Your task to perform on an android device: allow cookies in the chrome app Image 0: 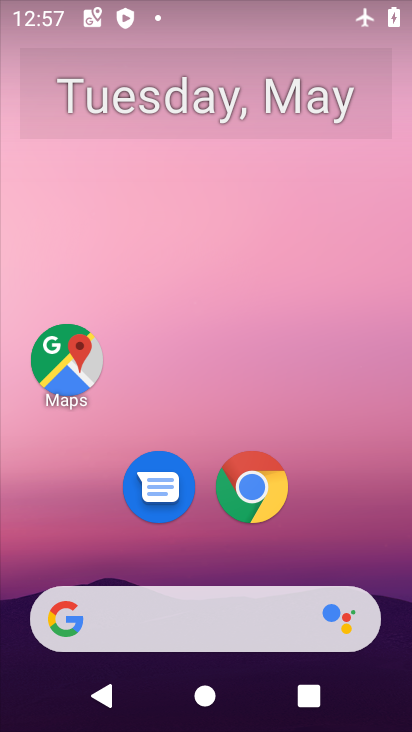
Step 0: drag from (319, 277) to (317, 44)
Your task to perform on an android device: allow cookies in the chrome app Image 1: 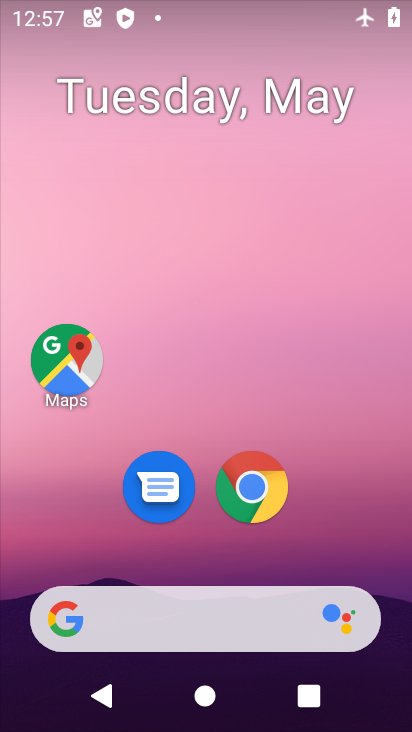
Step 1: drag from (324, 563) to (303, 175)
Your task to perform on an android device: allow cookies in the chrome app Image 2: 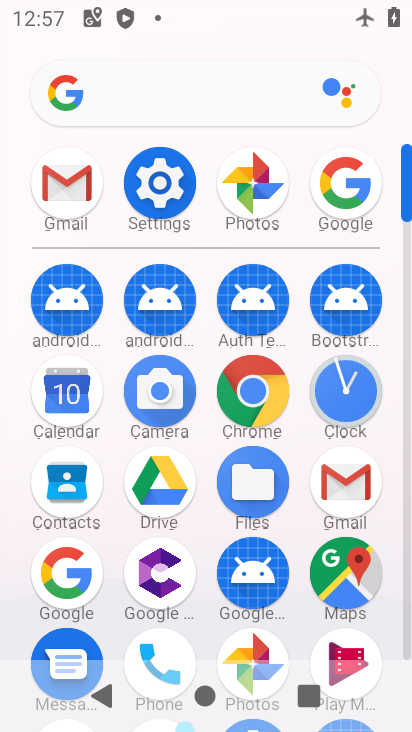
Step 2: click (254, 415)
Your task to perform on an android device: allow cookies in the chrome app Image 3: 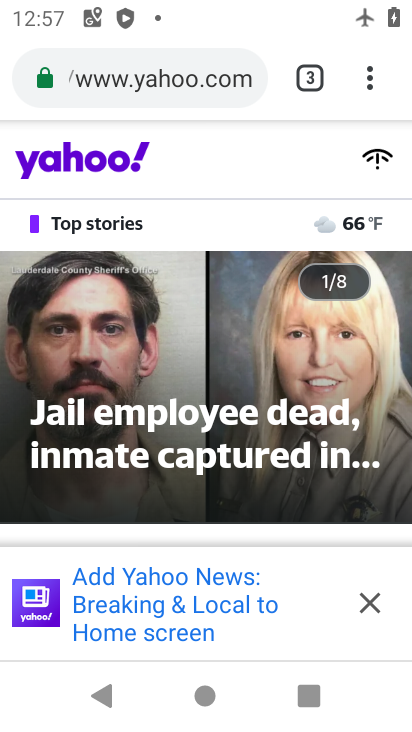
Step 3: click (385, 84)
Your task to perform on an android device: allow cookies in the chrome app Image 4: 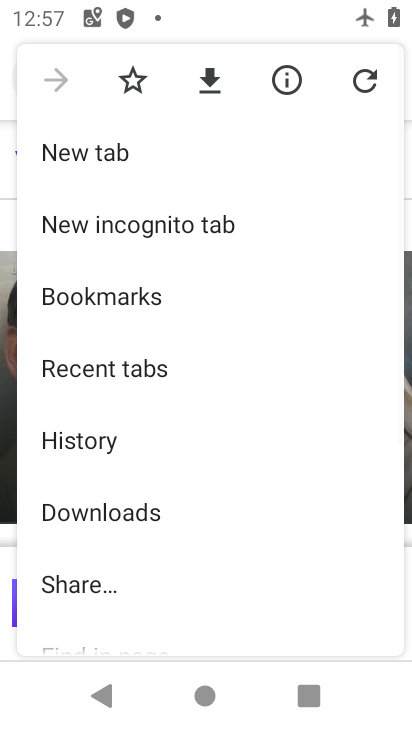
Step 4: drag from (258, 533) to (272, 308)
Your task to perform on an android device: allow cookies in the chrome app Image 5: 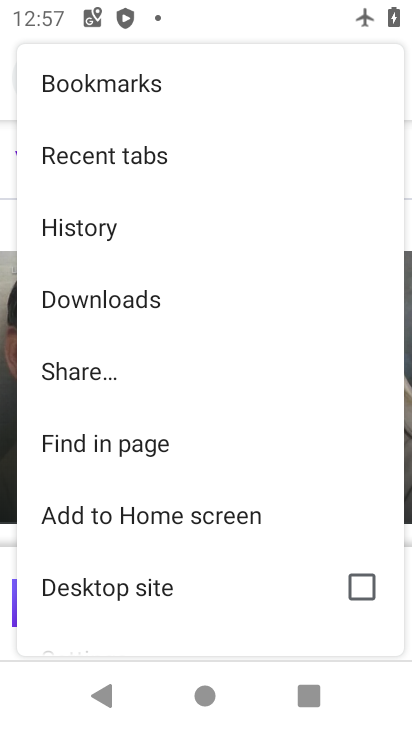
Step 5: drag from (185, 591) to (238, 268)
Your task to perform on an android device: allow cookies in the chrome app Image 6: 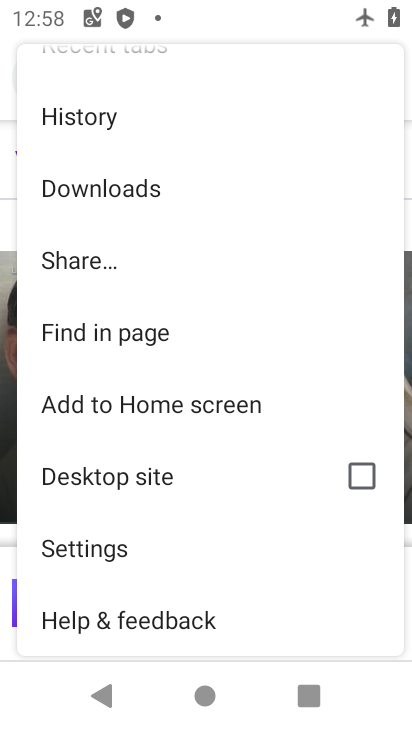
Step 6: click (141, 550)
Your task to perform on an android device: allow cookies in the chrome app Image 7: 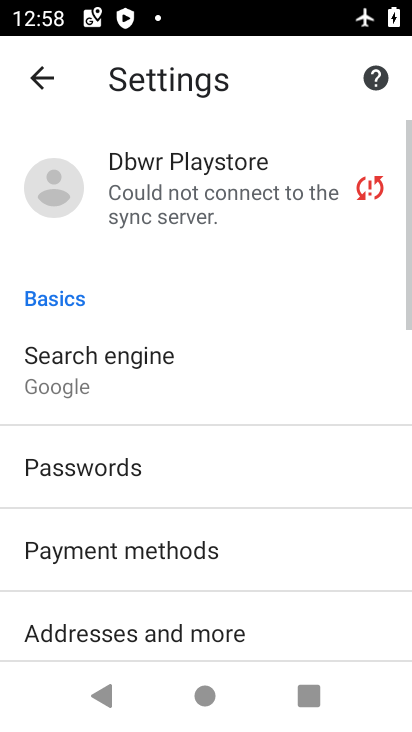
Step 7: drag from (189, 505) to (197, 101)
Your task to perform on an android device: allow cookies in the chrome app Image 8: 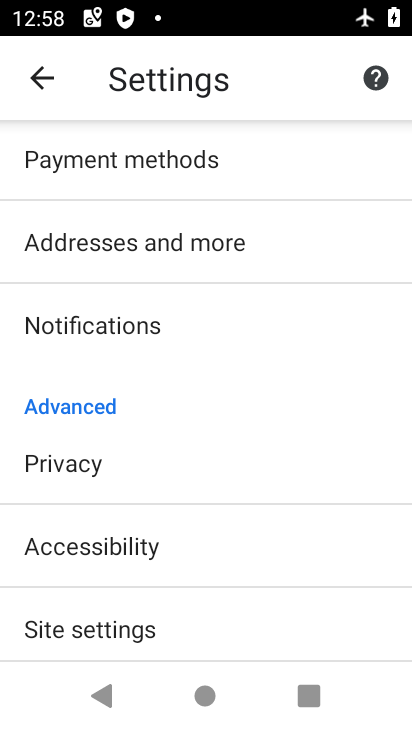
Step 8: click (104, 641)
Your task to perform on an android device: allow cookies in the chrome app Image 9: 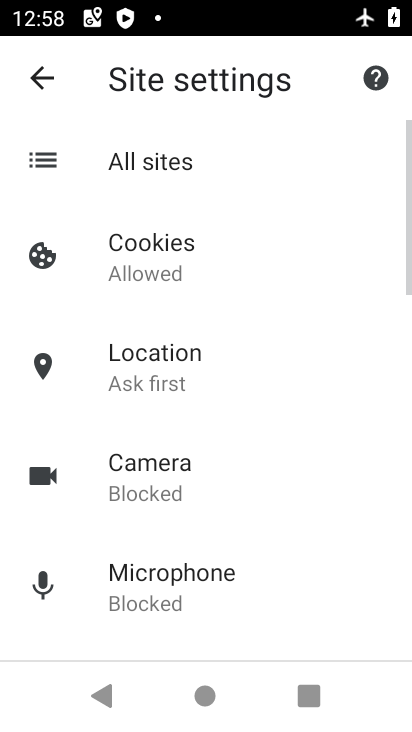
Step 9: click (174, 243)
Your task to perform on an android device: allow cookies in the chrome app Image 10: 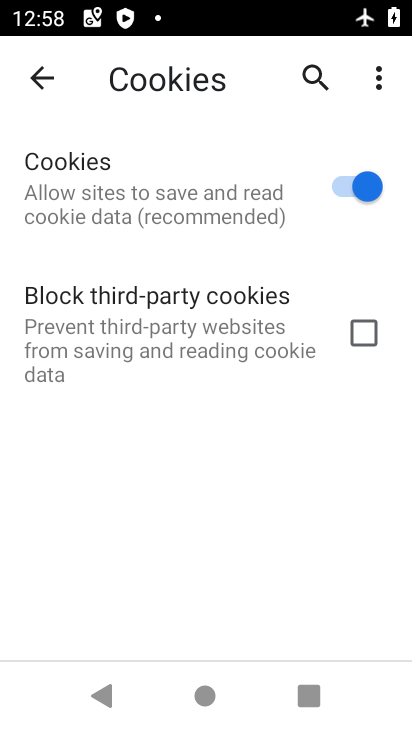
Step 10: task complete